Your task to perform on an android device: Search for usb-c on amazon.com, select the first entry, and add it to the cart. Image 0: 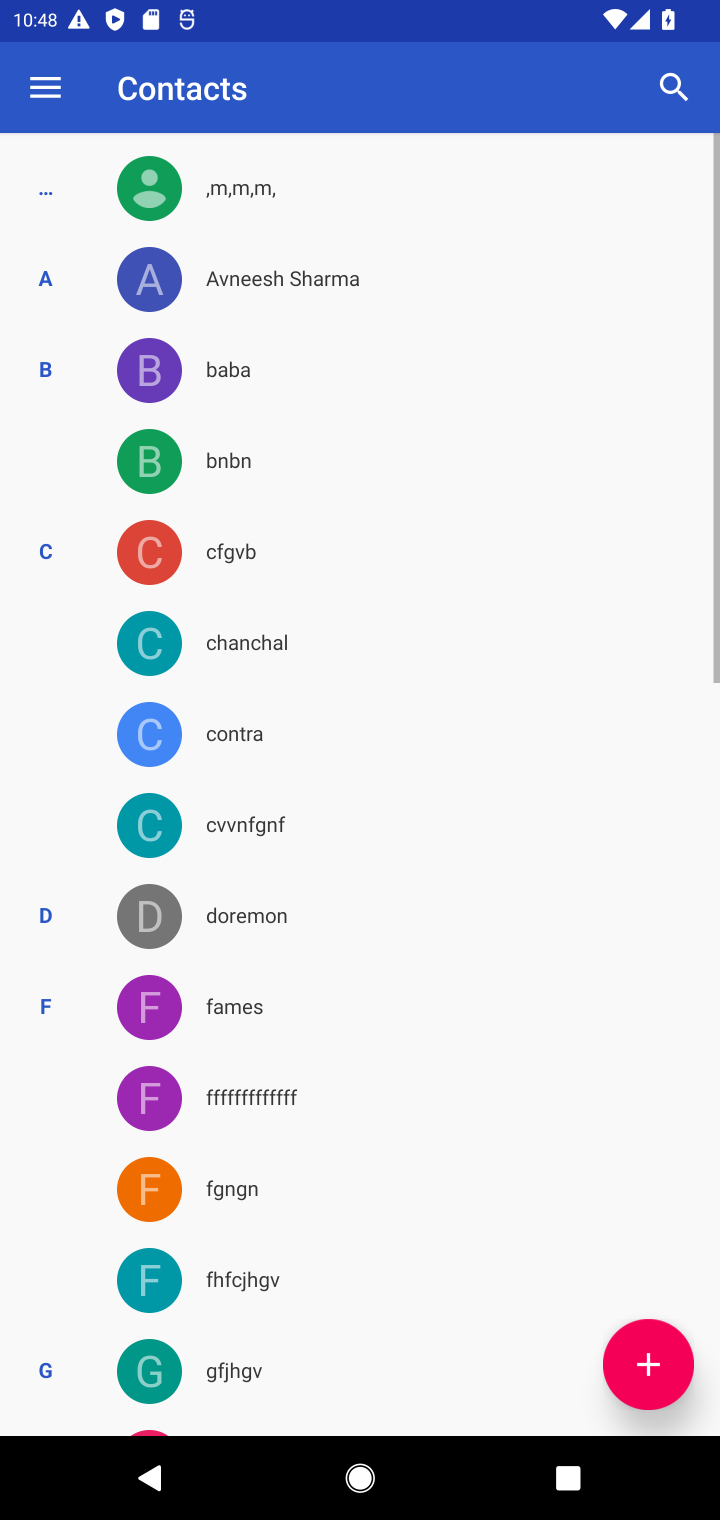
Step 0: press home button
Your task to perform on an android device: Search for usb-c on amazon.com, select the first entry, and add it to the cart. Image 1: 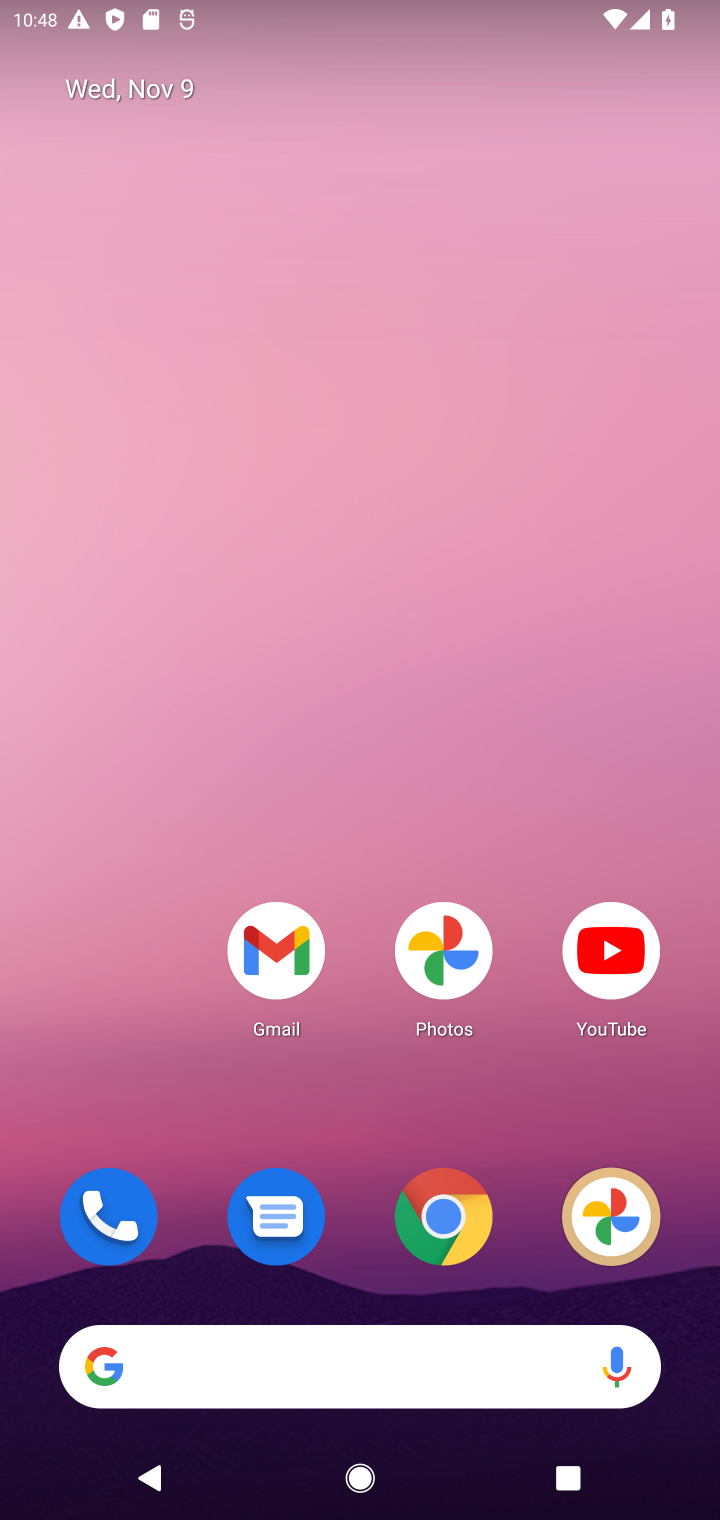
Step 1: drag from (316, 1118) to (406, 51)
Your task to perform on an android device: Search for usb-c on amazon.com, select the first entry, and add it to the cart. Image 2: 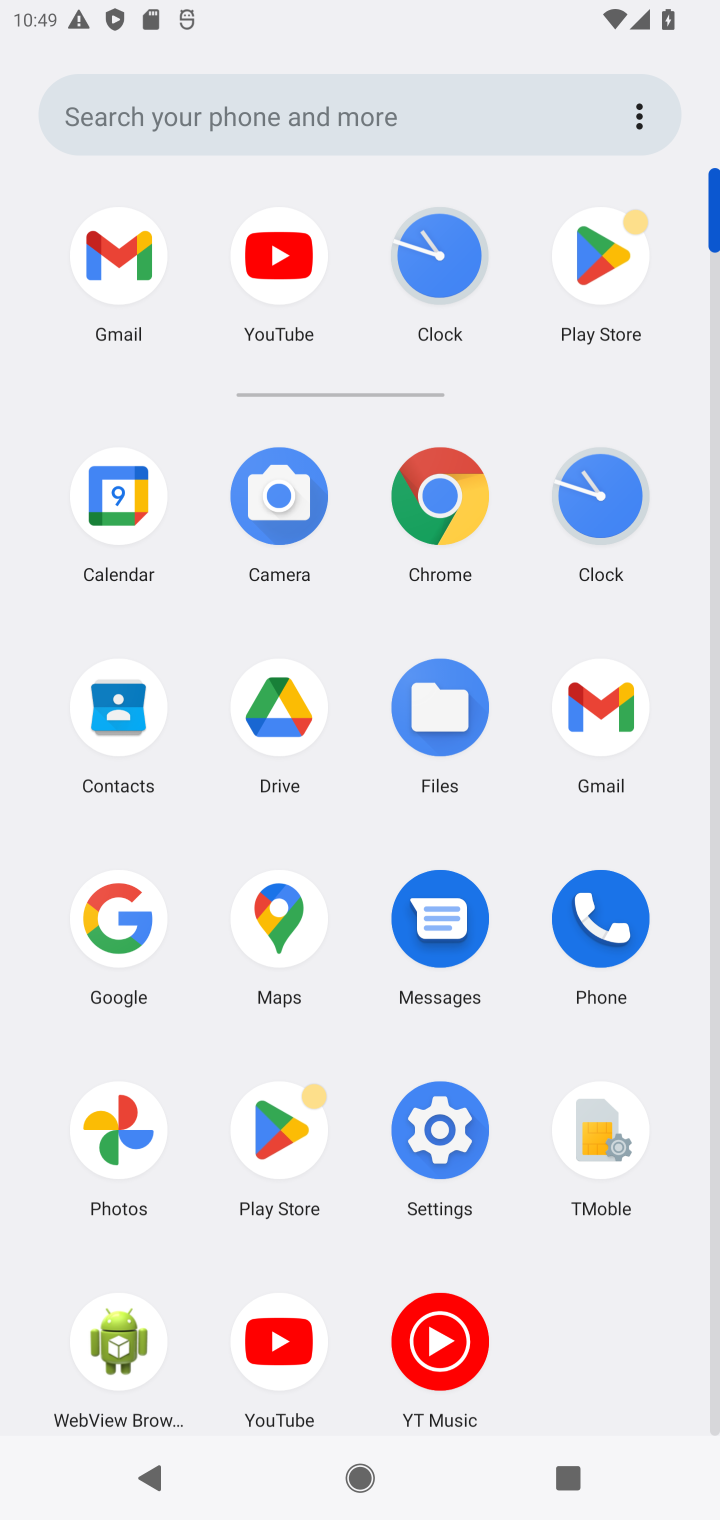
Step 2: click (447, 504)
Your task to perform on an android device: Search for usb-c on amazon.com, select the first entry, and add it to the cart. Image 3: 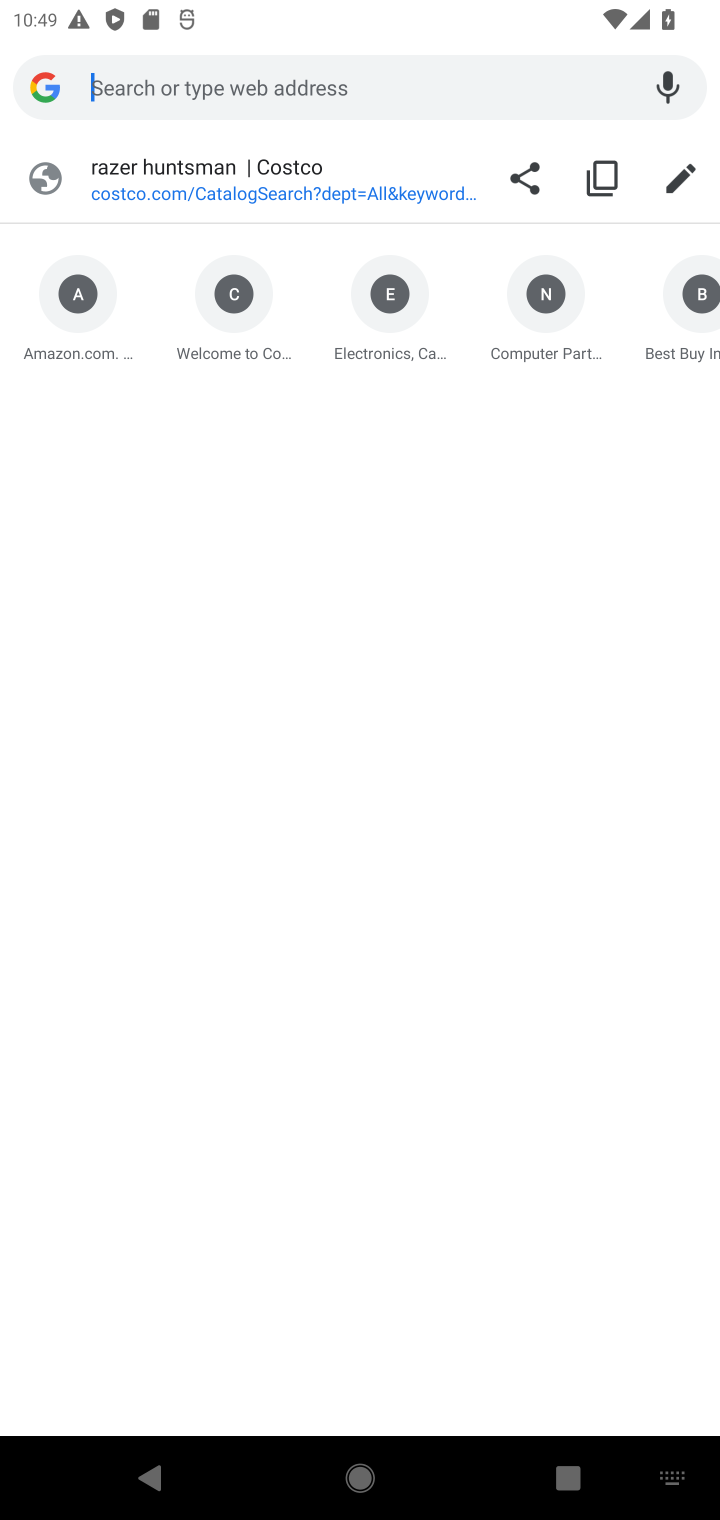
Step 3: type "amazon.com"
Your task to perform on an android device: Search for usb-c on amazon.com, select the first entry, and add it to the cart. Image 4: 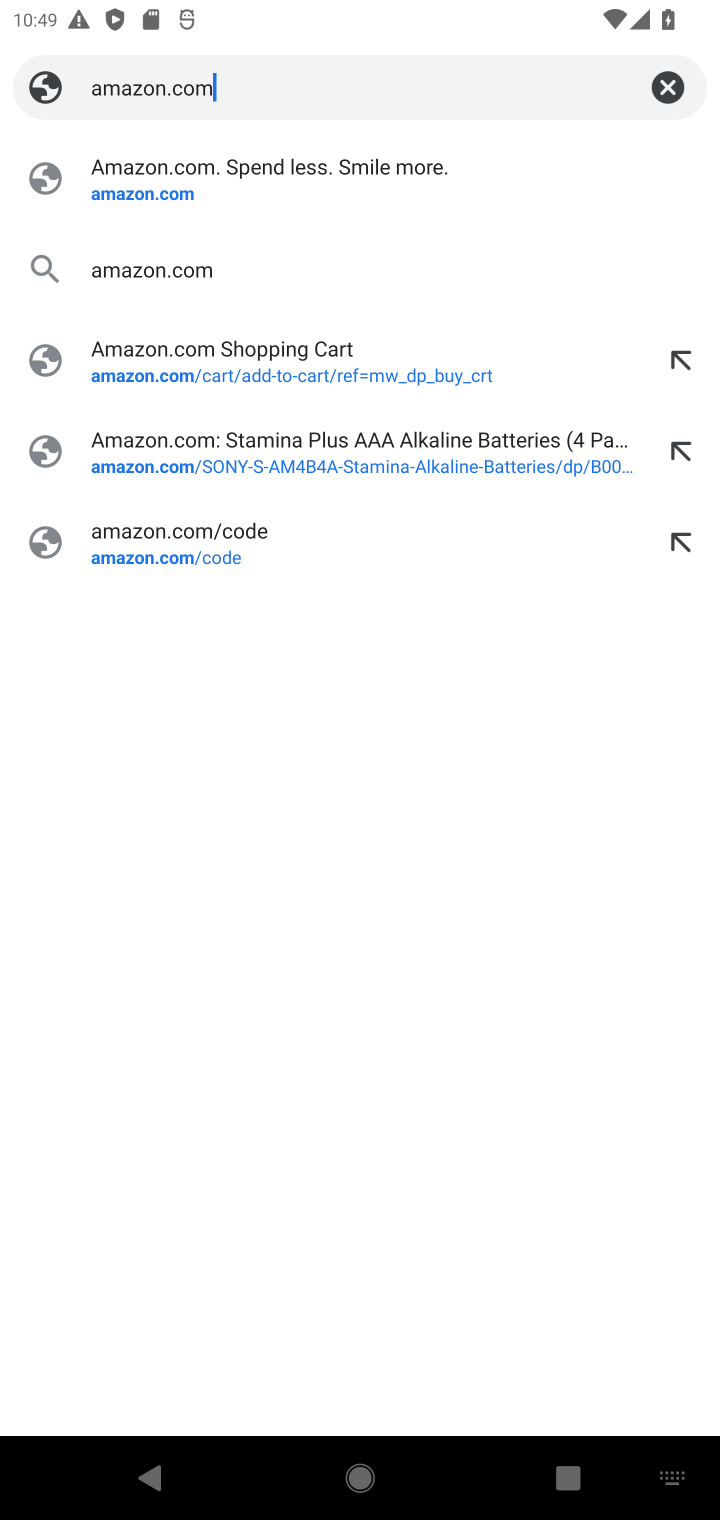
Step 4: press enter
Your task to perform on an android device: Search for usb-c on amazon.com, select the first entry, and add it to the cart. Image 5: 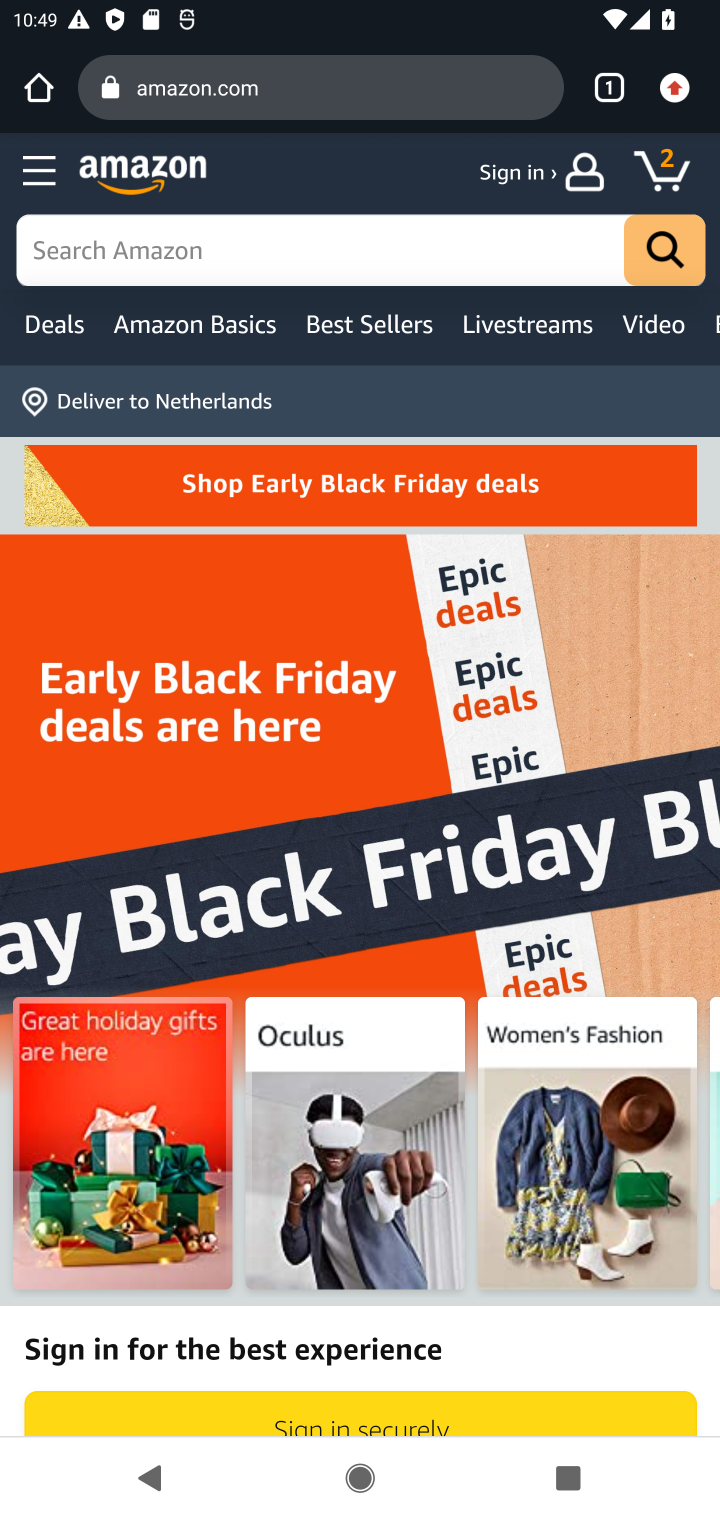
Step 5: click (512, 235)
Your task to perform on an android device: Search for usb-c on amazon.com, select the first entry, and add it to the cart. Image 6: 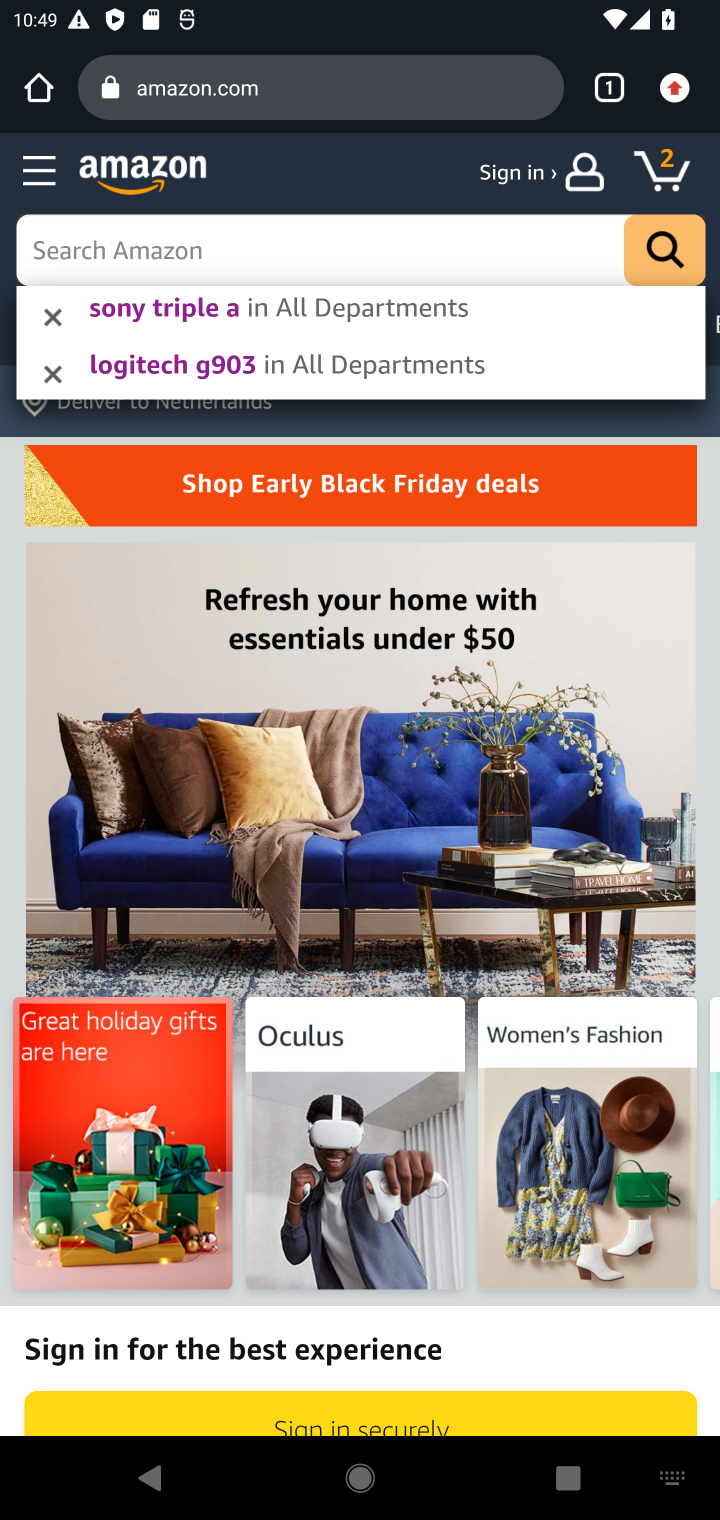
Step 6: type "usb-c"
Your task to perform on an android device: Search for usb-c on amazon.com, select the first entry, and add it to the cart. Image 7: 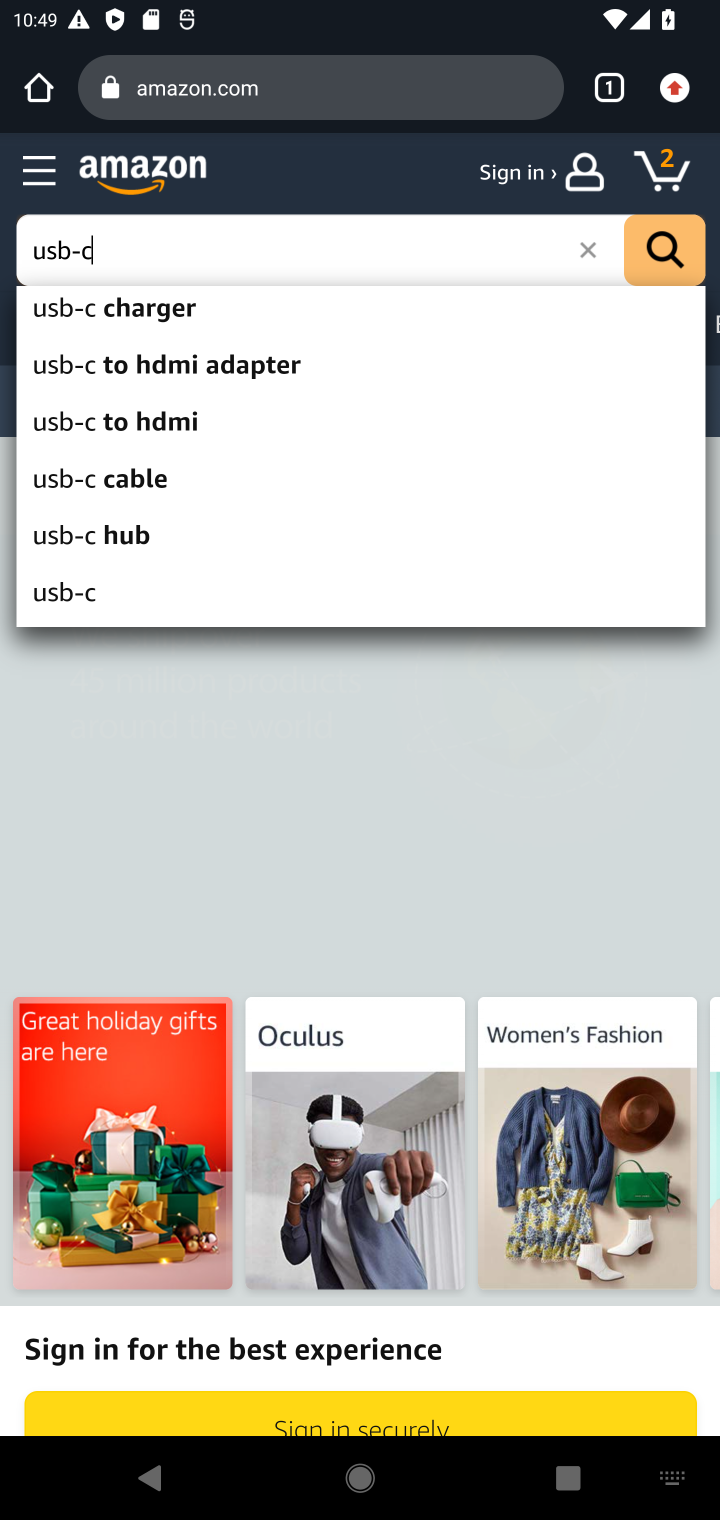
Step 7: press enter
Your task to perform on an android device: Search for usb-c on amazon.com, select the first entry, and add it to the cart. Image 8: 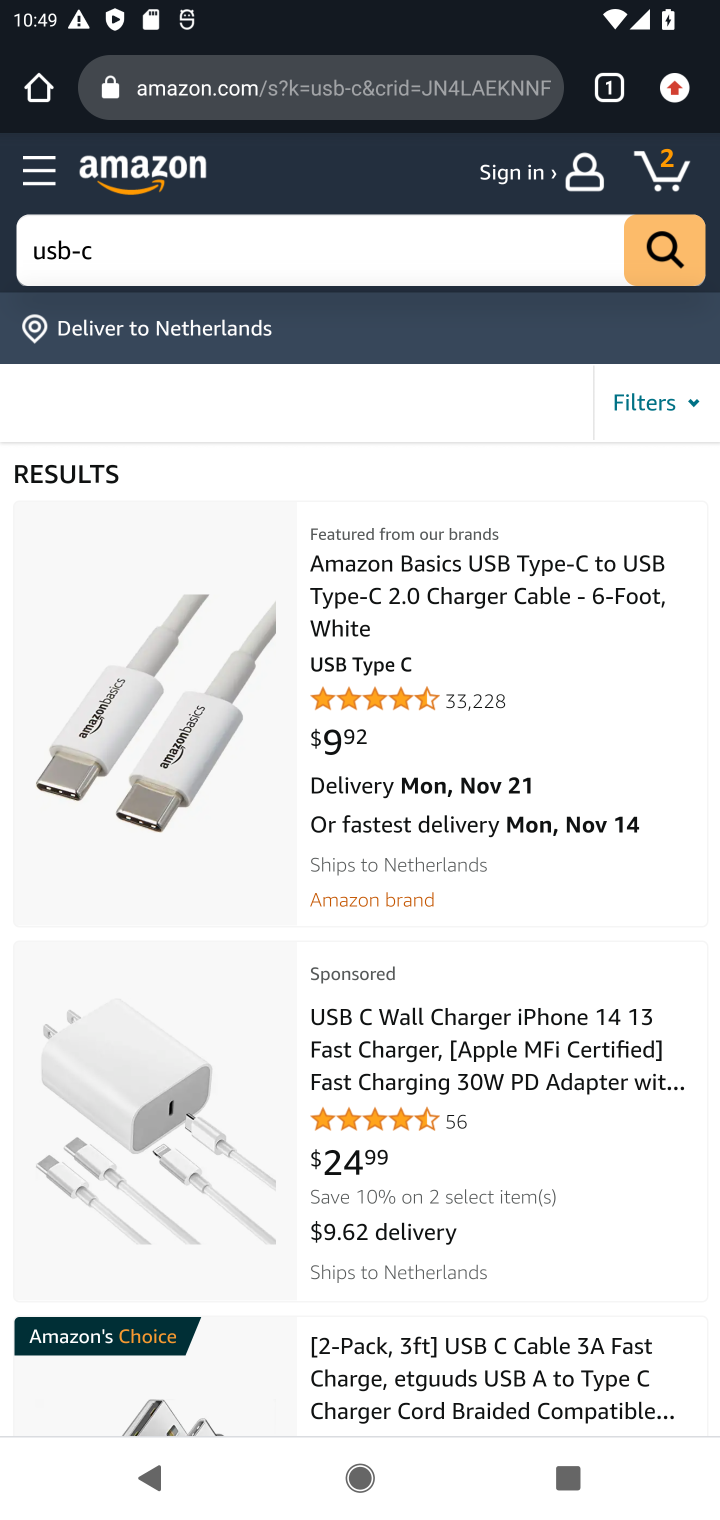
Step 8: drag from (384, 1392) to (474, 509)
Your task to perform on an android device: Search for usb-c on amazon.com, select the first entry, and add it to the cart. Image 9: 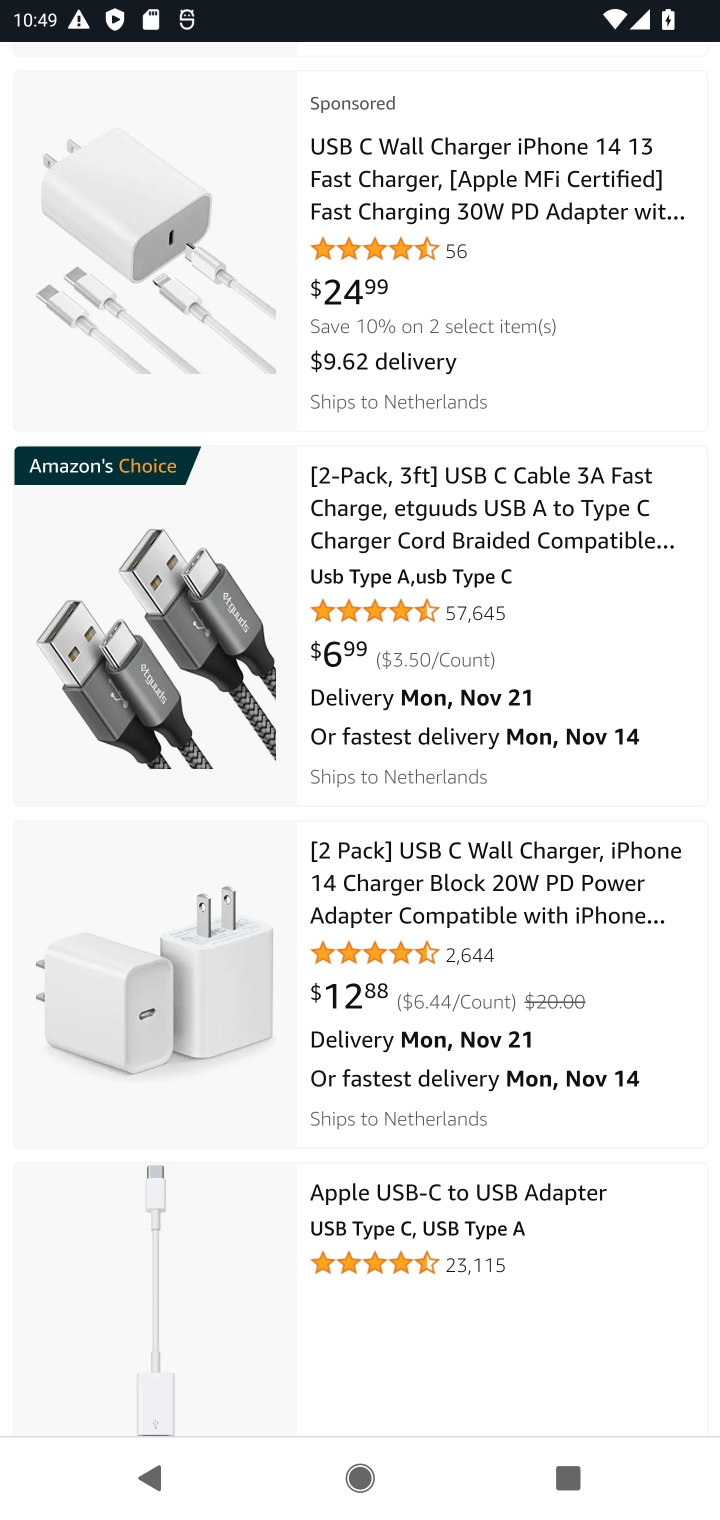
Step 9: click (431, 545)
Your task to perform on an android device: Search for usb-c on amazon.com, select the first entry, and add it to the cart. Image 10: 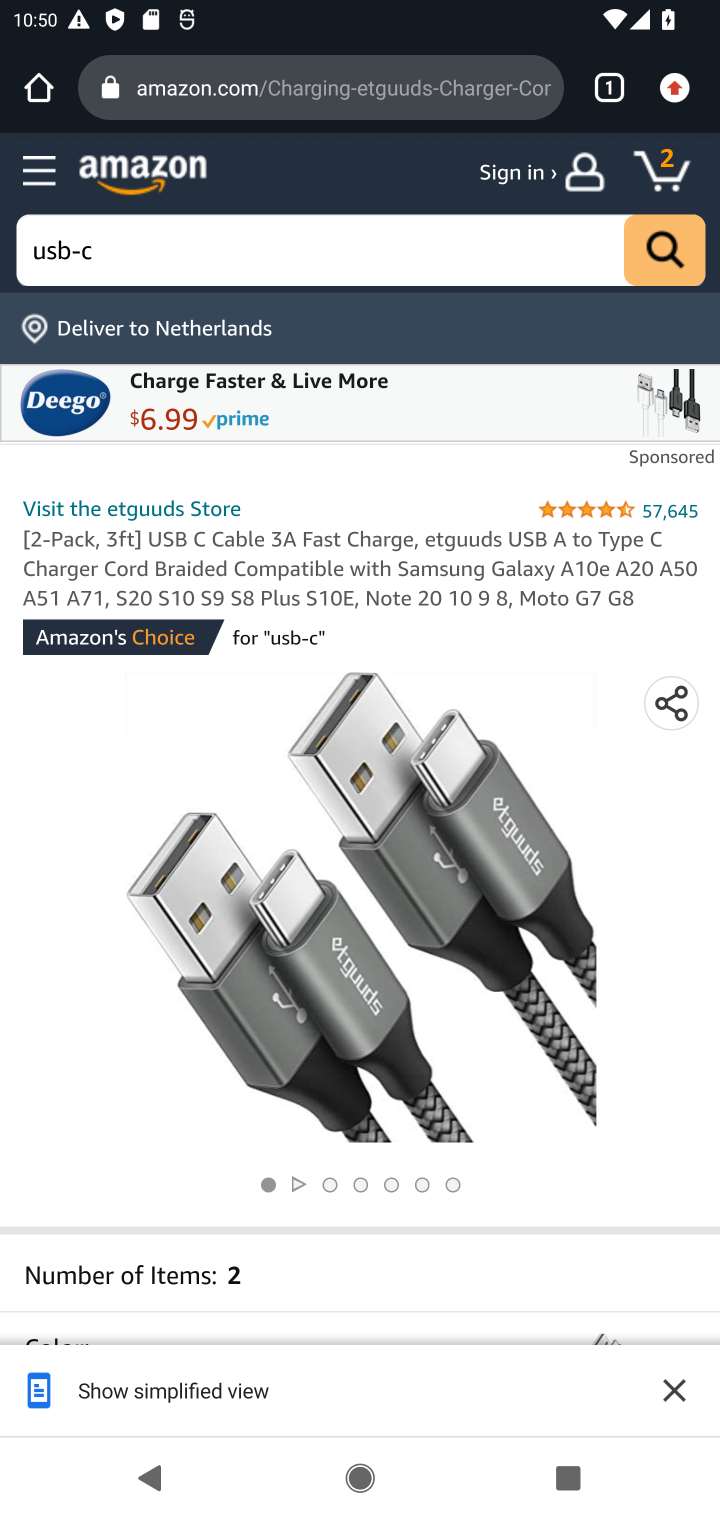
Step 10: drag from (375, 734) to (427, 20)
Your task to perform on an android device: Search for usb-c on amazon.com, select the first entry, and add it to the cart. Image 11: 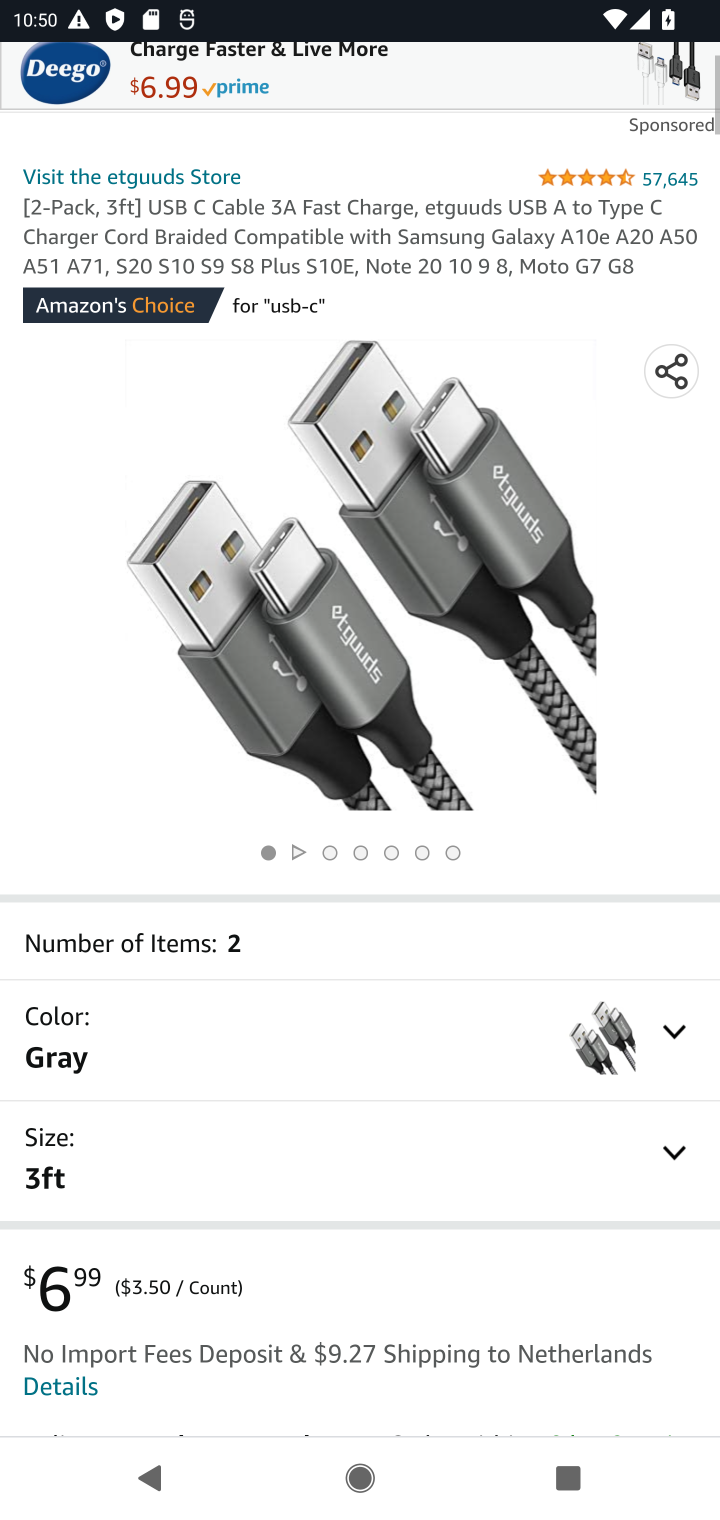
Step 11: drag from (424, 790) to (455, 21)
Your task to perform on an android device: Search for usb-c on amazon.com, select the first entry, and add it to the cart. Image 12: 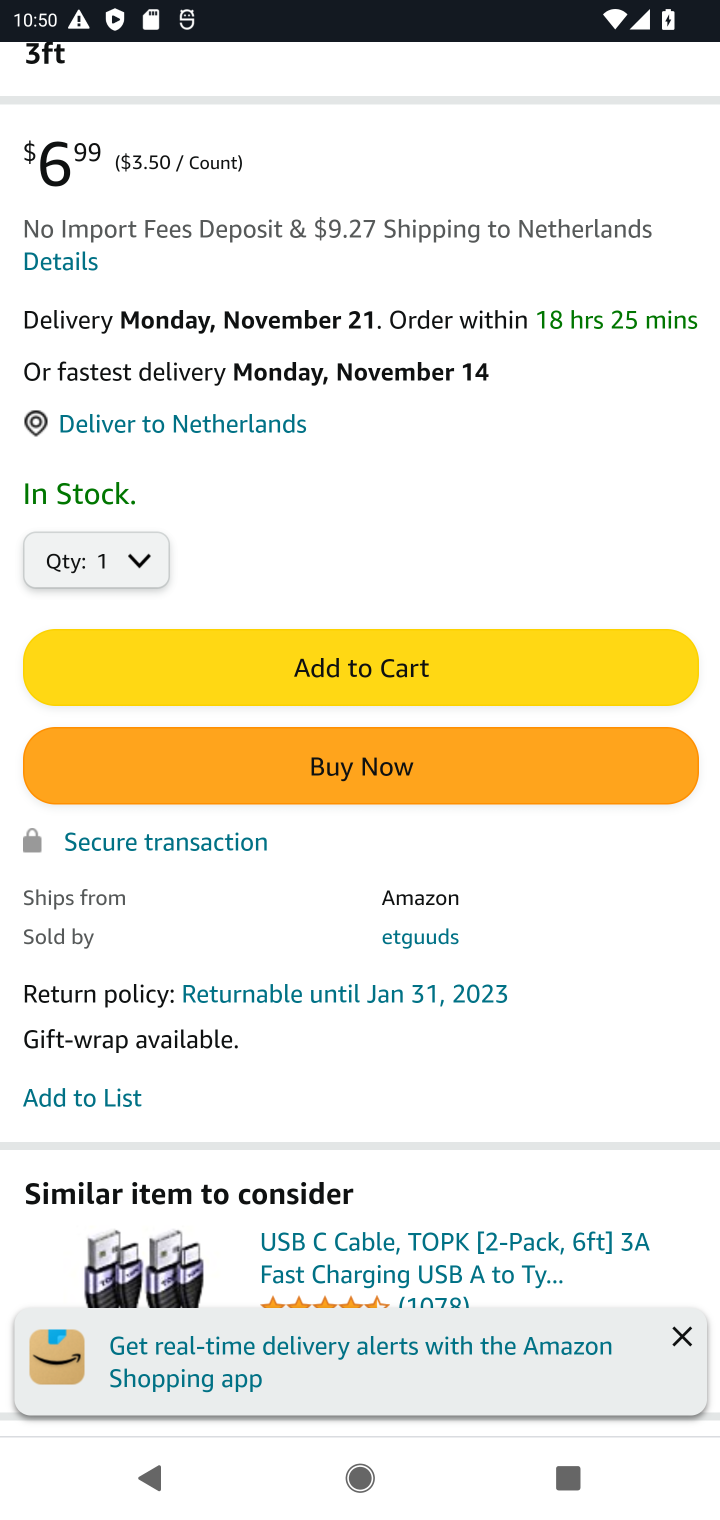
Step 12: click (435, 668)
Your task to perform on an android device: Search for usb-c on amazon.com, select the first entry, and add it to the cart. Image 13: 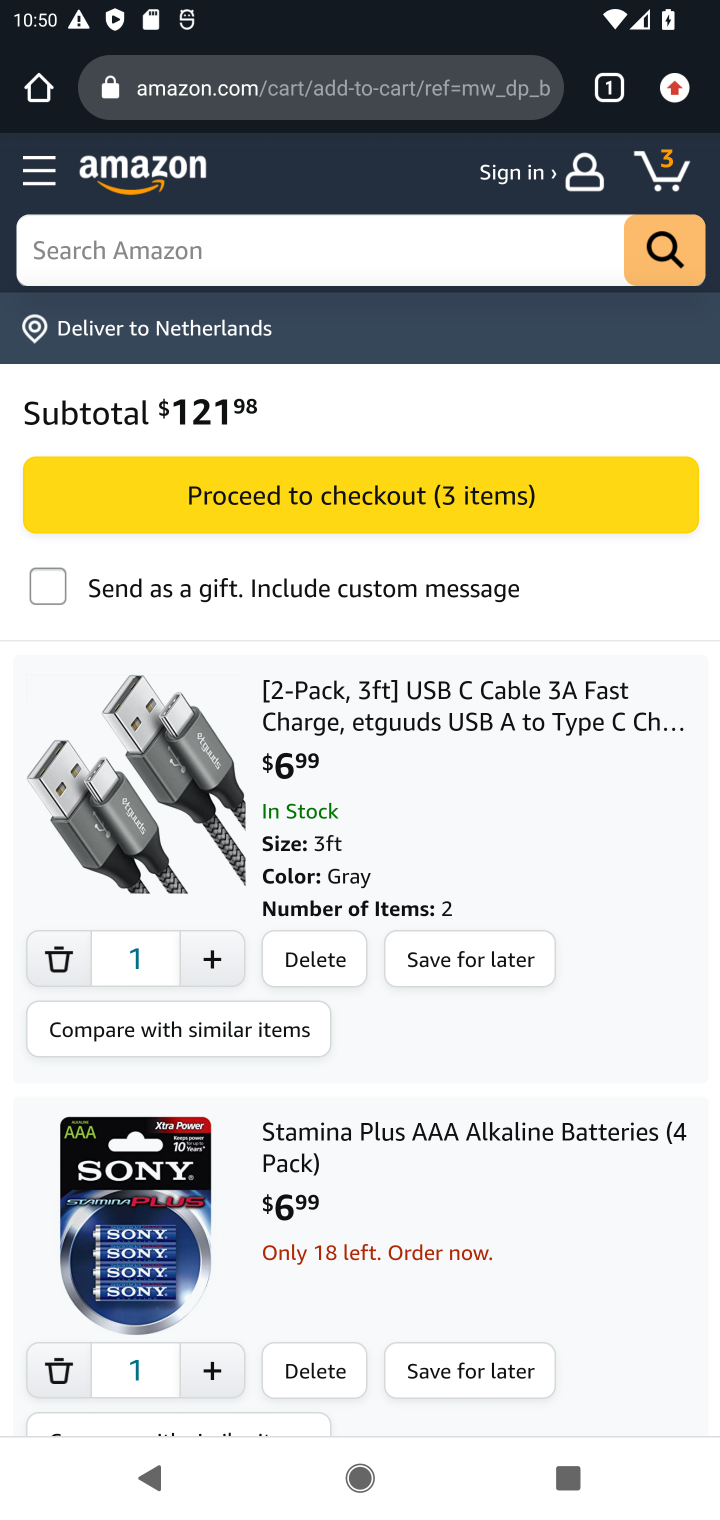
Step 13: task complete